Your task to perform on an android device: toggle notifications settings in the gmail app Image 0: 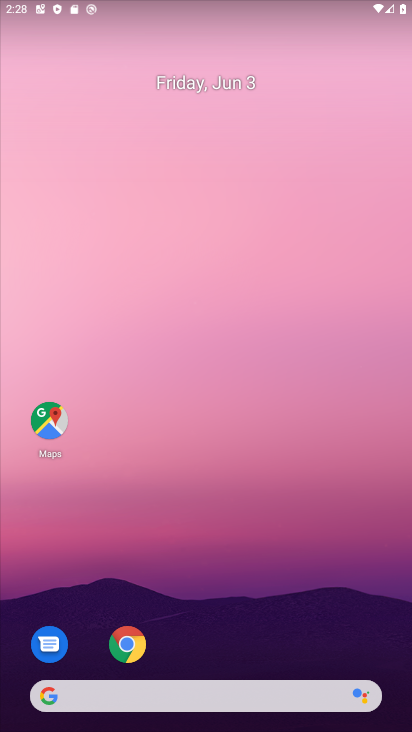
Step 0: drag from (264, 633) to (216, 219)
Your task to perform on an android device: toggle notifications settings in the gmail app Image 1: 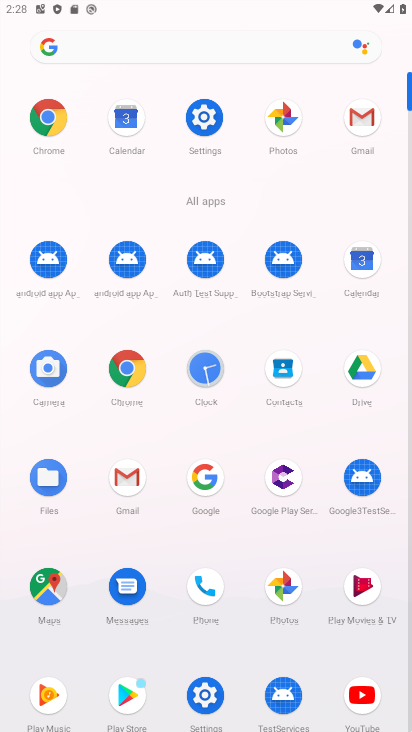
Step 1: click (139, 492)
Your task to perform on an android device: toggle notifications settings in the gmail app Image 2: 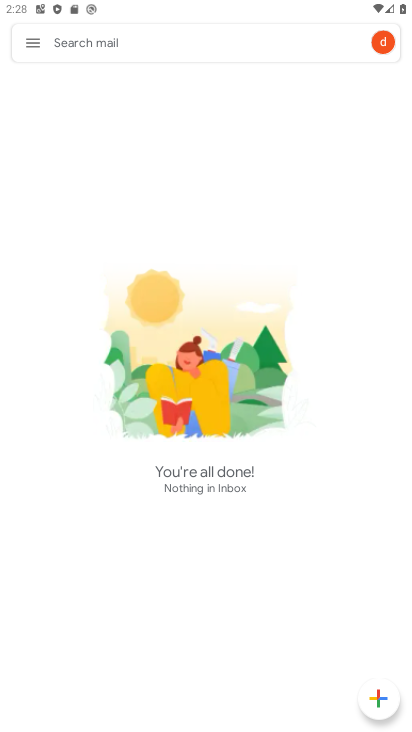
Step 2: click (21, 42)
Your task to perform on an android device: toggle notifications settings in the gmail app Image 3: 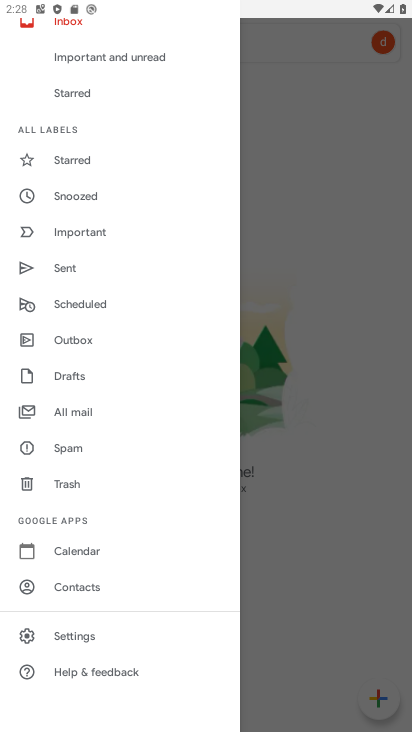
Step 3: click (93, 635)
Your task to perform on an android device: toggle notifications settings in the gmail app Image 4: 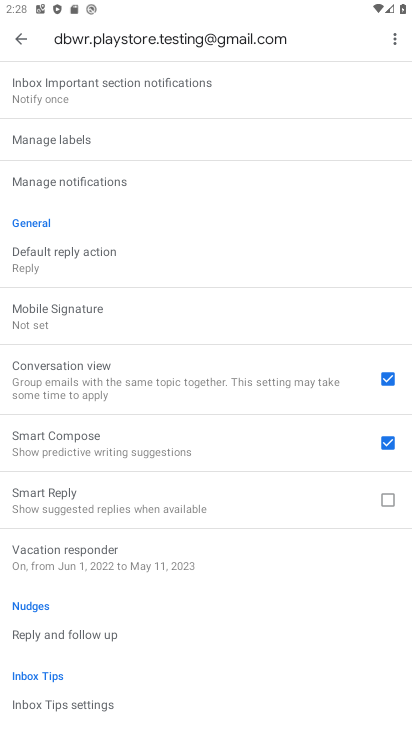
Step 4: drag from (134, 622) to (149, 492)
Your task to perform on an android device: toggle notifications settings in the gmail app Image 5: 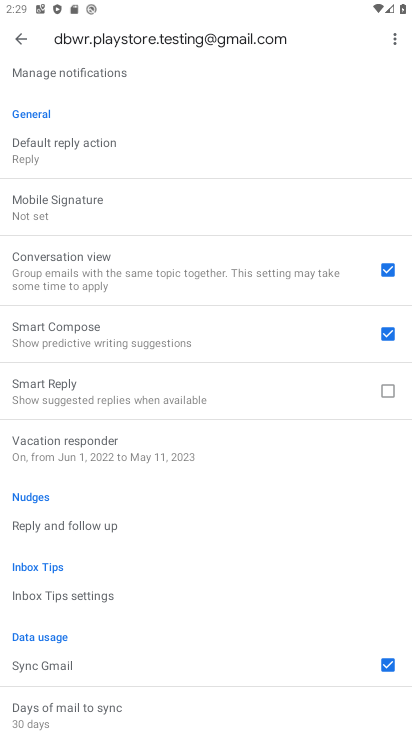
Step 5: click (142, 79)
Your task to perform on an android device: toggle notifications settings in the gmail app Image 6: 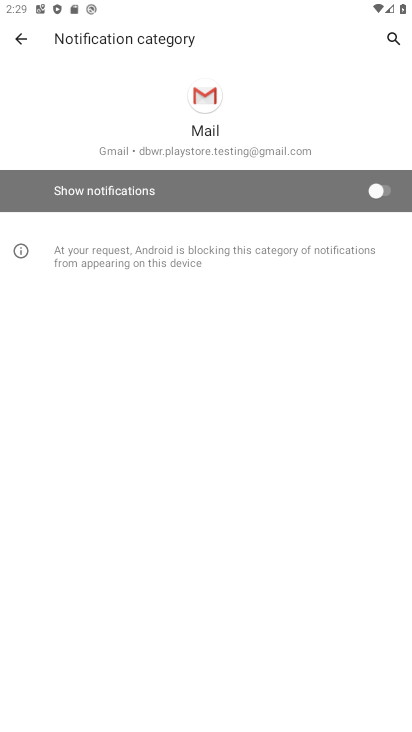
Step 6: click (385, 179)
Your task to perform on an android device: toggle notifications settings in the gmail app Image 7: 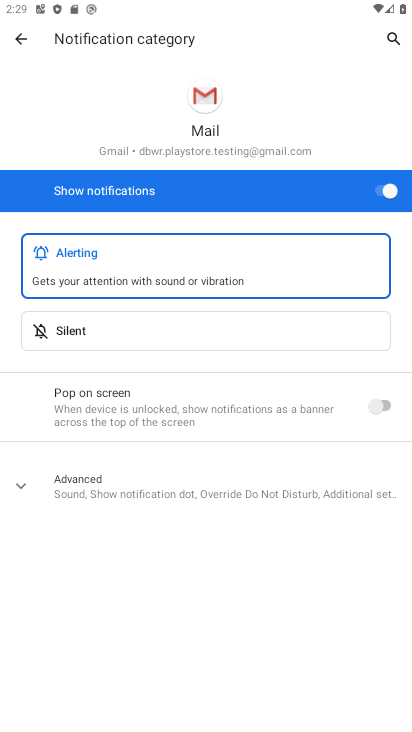
Step 7: task complete